Your task to perform on an android device: change alarm snooze length Image 0: 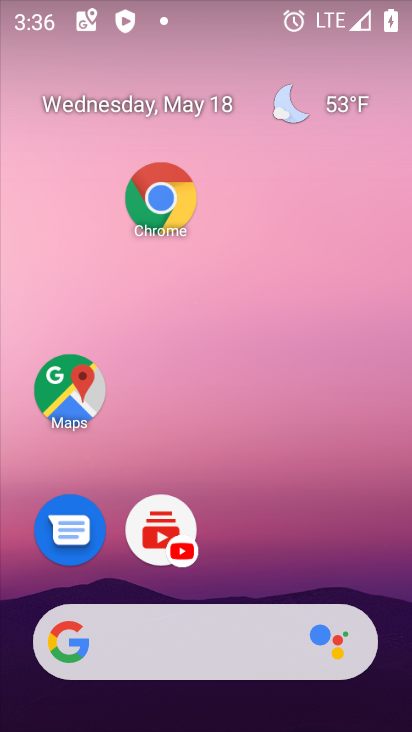
Step 0: drag from (287, 666) to (252, 204)
Your task to perform on an android device: change alarm snooze length Image 1: 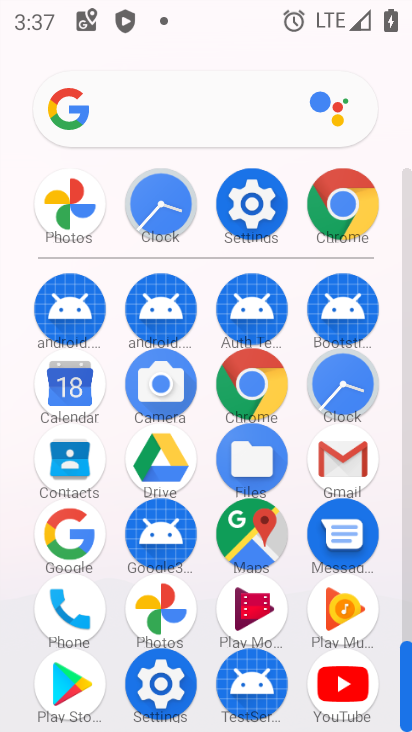
Step 1: click (346, 362)
Your task to perform on an android device: change alarm snooze length Image 2: 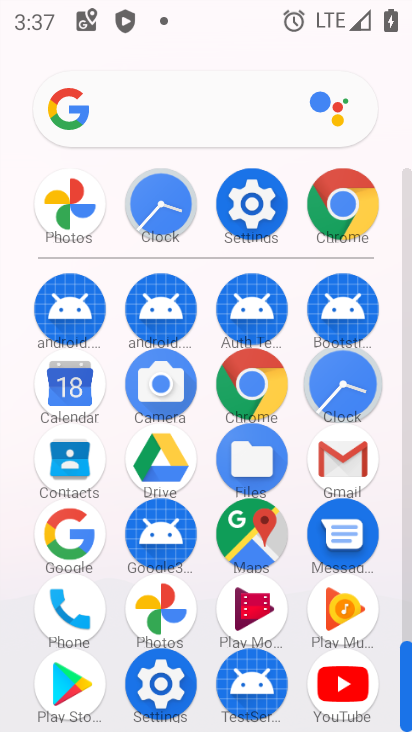
Step 2: click (338, 395)
Your task to perform on an android device: change alarm snooze length Image 3: 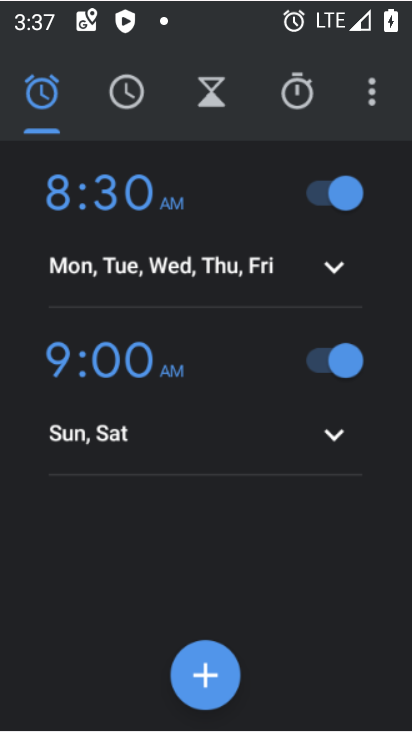
Step 3: click (338, 394)
Your task to perform on an android device: change alarm snooze length Image 4: 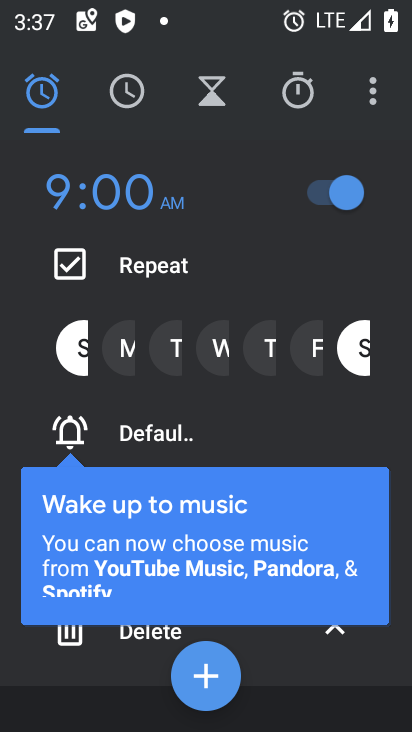
Step 4: click (370, 100)
Your task to perform on an android device: change alarm snooze length Image 5: 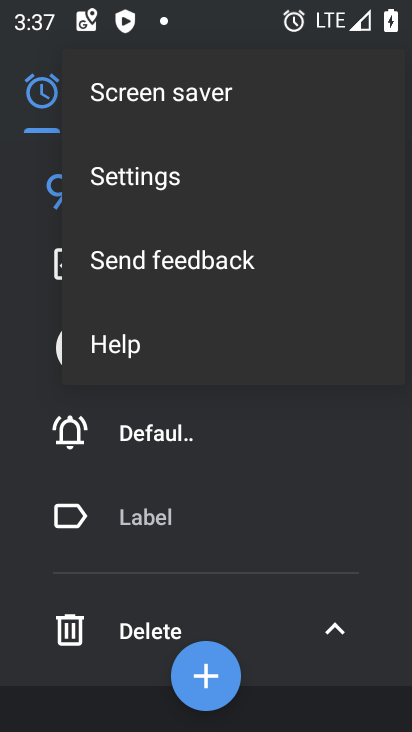
Step 5: click (87, 188)
Your task to perform on an android device: change alarm snooze length Image 6: 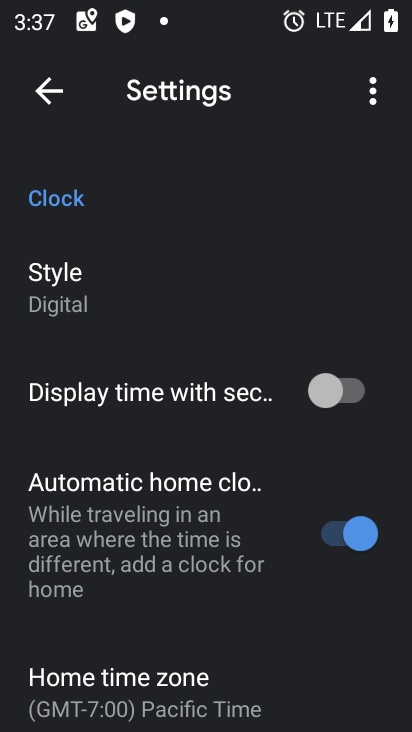
Step 6: drag from (160, 557) to (151, 286)
Your task to perform on an android device: change alarm snooze length Image 7: 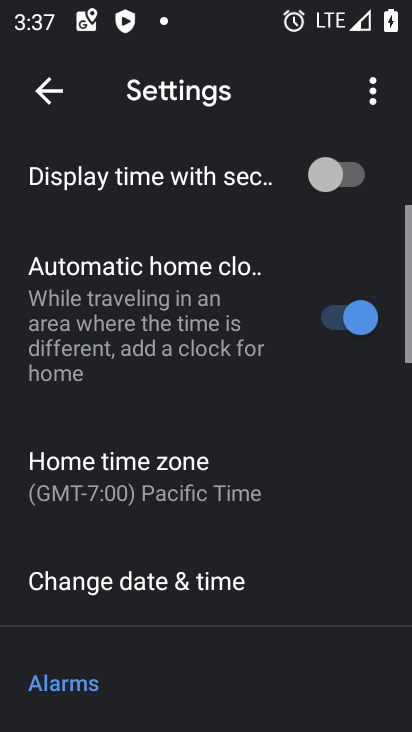
Step 7: drag from (208, 375) to (211, 197)
Your task to perform on an android device: change alarm snooze length Image 8: 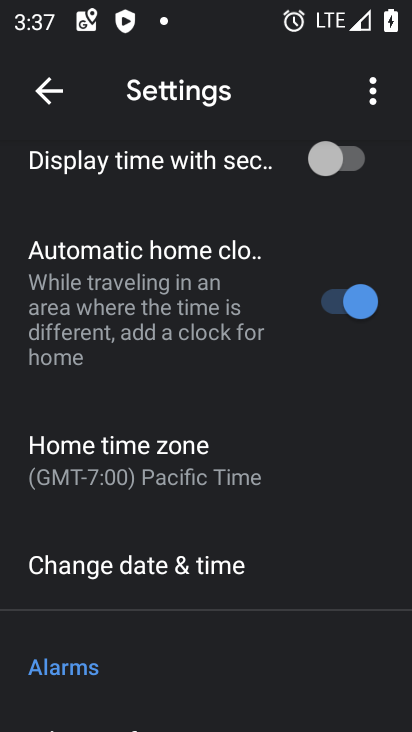
Step 8: drag from (228, 535) to (260, 210)
Your task to perform on an android device: change alarm snooze length Image 9: 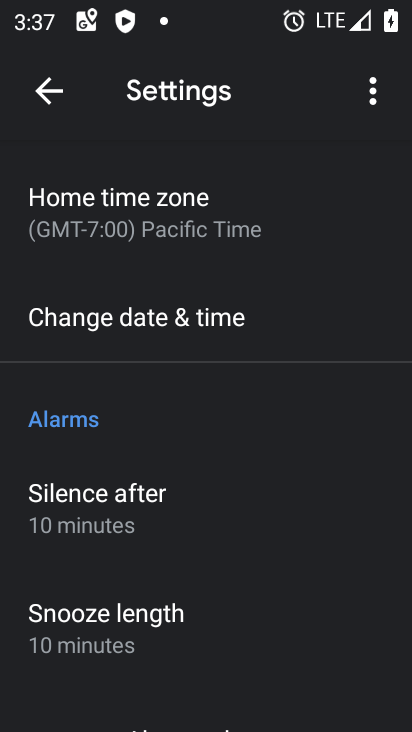
Step 9: click (105, 608)
Your task to perform on an android device: change alarm snooze length Image 10: 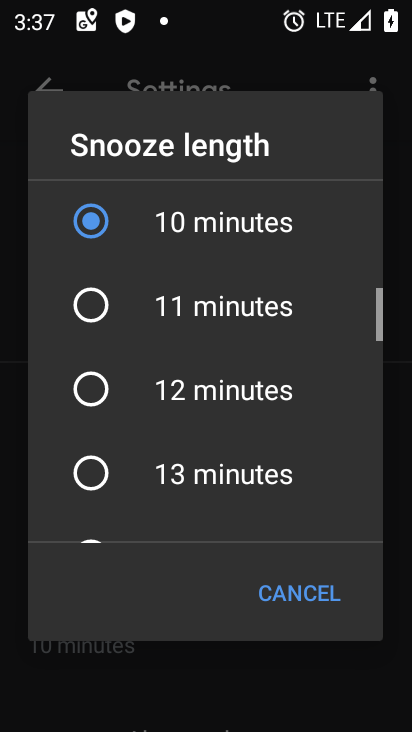
Step 10: click (74, 478)
Your task to perform on an android device: change alarm snooze length Image 11: 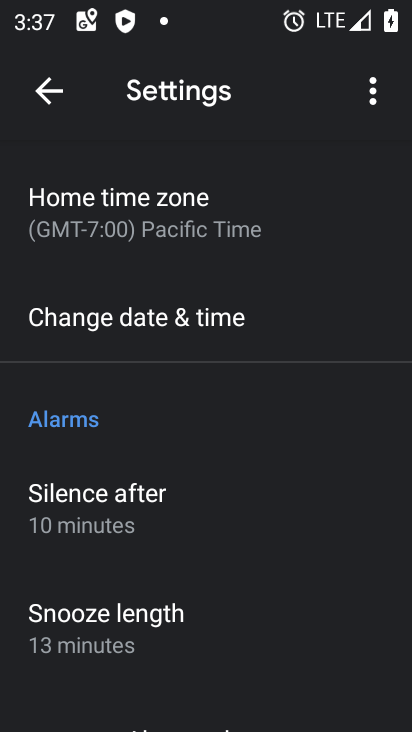
Step 11: task complete